Your task to perform on an android device: all mails in gmail Image 0: 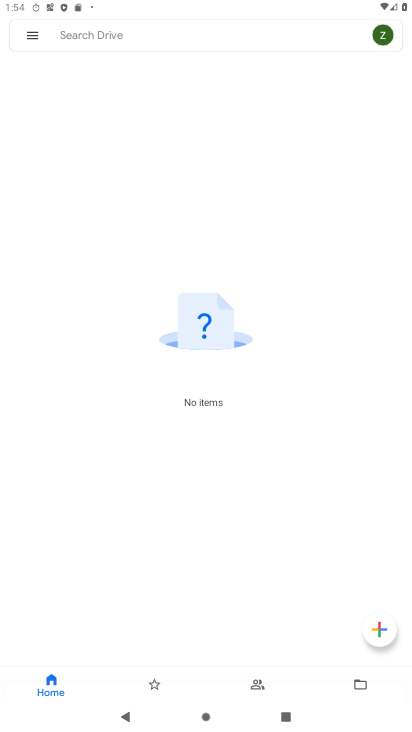
Step 0: press home button
Your task to perform on an android device: all mails in gmail Image 1: 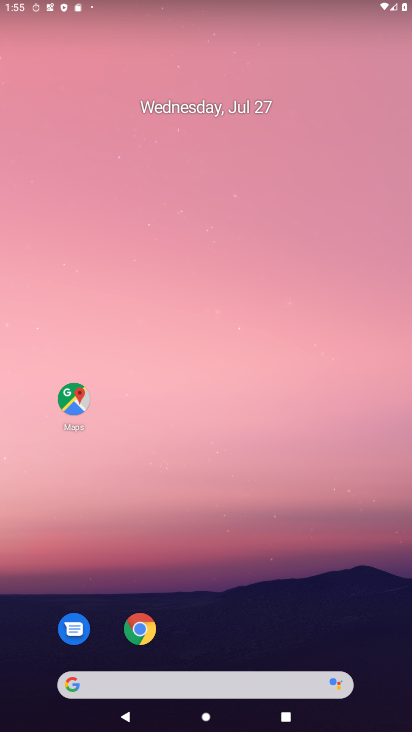
Step 1: drag from (346, 660) to (93, 7)
Your task to perform on an android device: all mails in gmail Image 2: 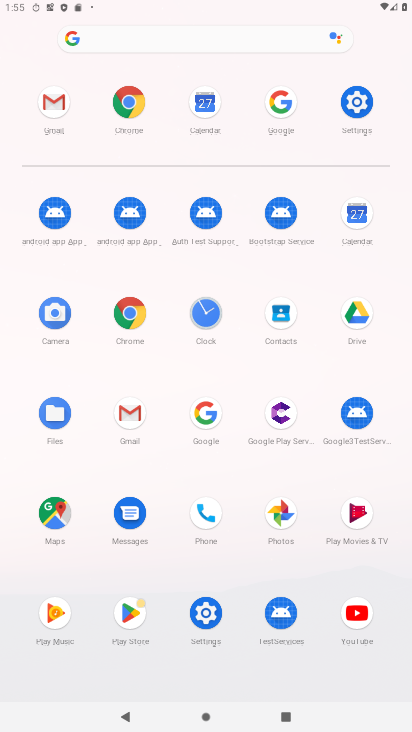
Step 2: click (57, 106)
Your task to perform on an android device: all mails in gmail Image 3: 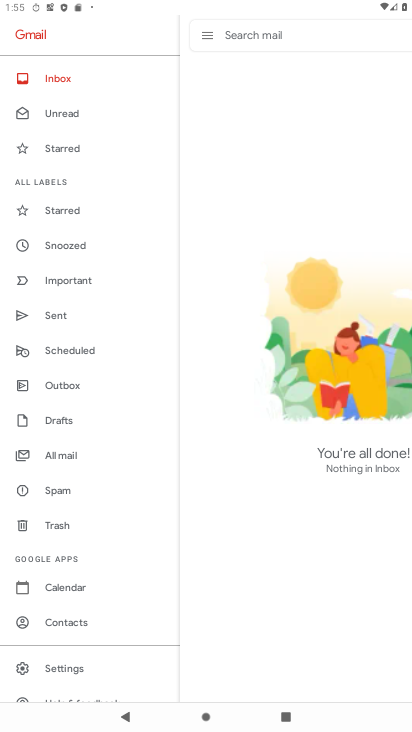
Step 3: click (67, 452)
Your task to perform on an android device: all mails in gmail Image 4: 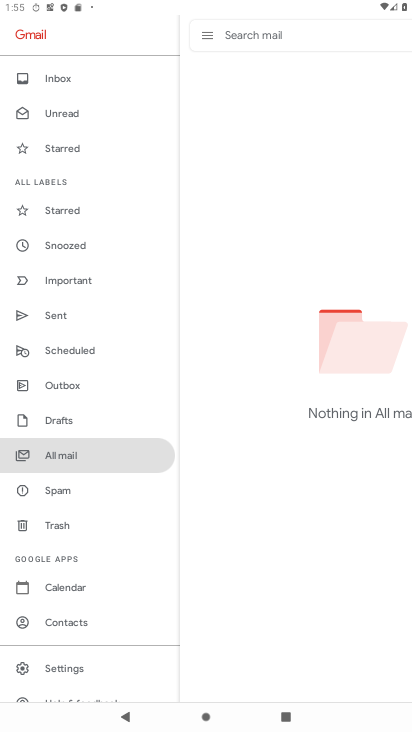
Step 4: task complete